Your task to perform on an android device: open a new tab in the chrome app Image 0: 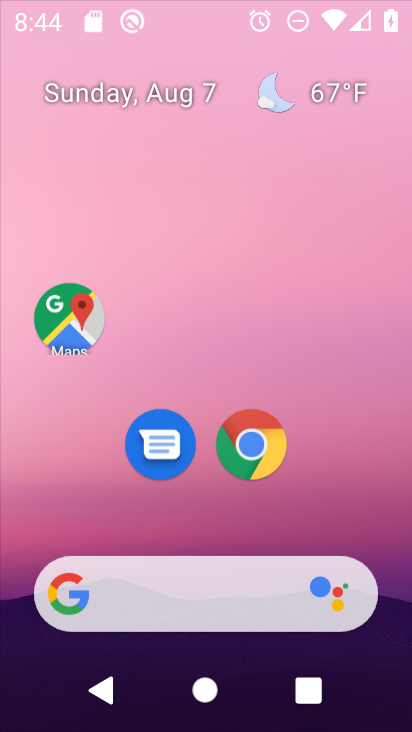
Step 0: press home button
Your task to perform on an android device: open a new tab in the chrome app Image 1: 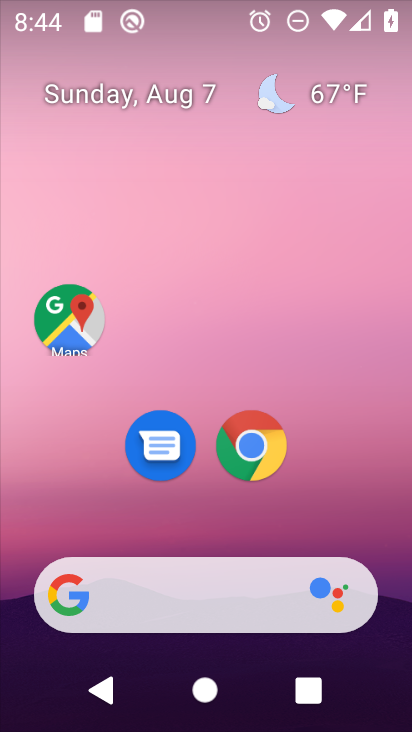
Step 1: drag from (323, 523) to (340, 62)
Your task to perform on an android device: open a new tab in the chrome app Image 2: 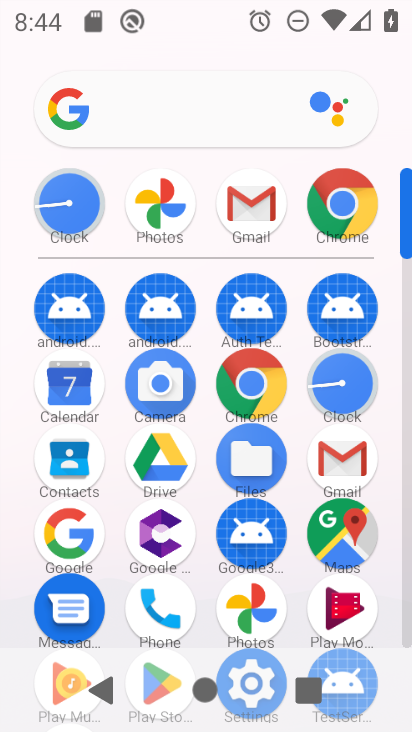
Step 2: click (340, 195)
Your task to perform on an android device: open a new tab in the chrome app Image 3: 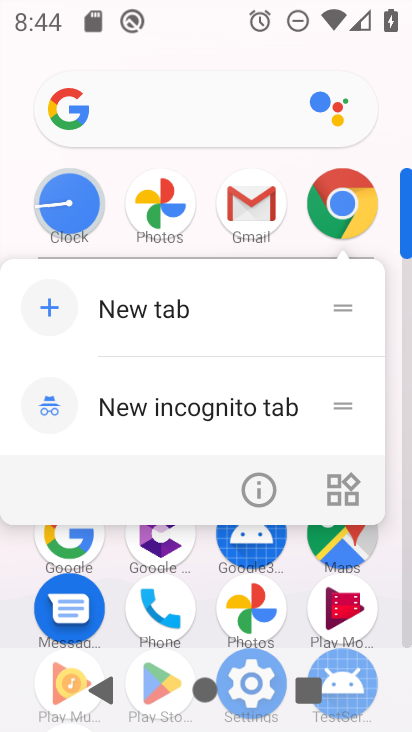
Step 3: click (343, 206)
Your task to perform on an android device: open a new tab in the chrome app Image 4: 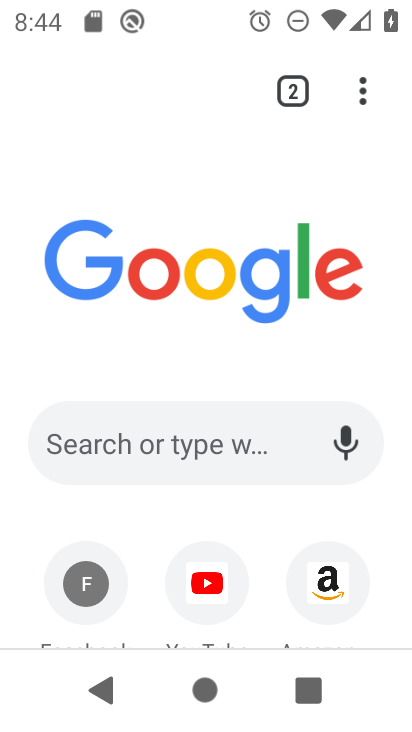
Step 4: click (287, 82)
Your task to perform on an android device: open a new tab in the chrome app Image 5: 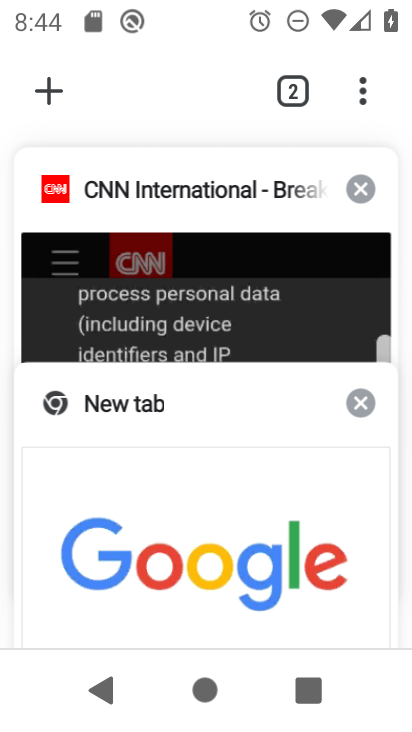
Step 5: click (32, 90)
Your task to perform on an android device: open a new tab in the chrome app Image 6: 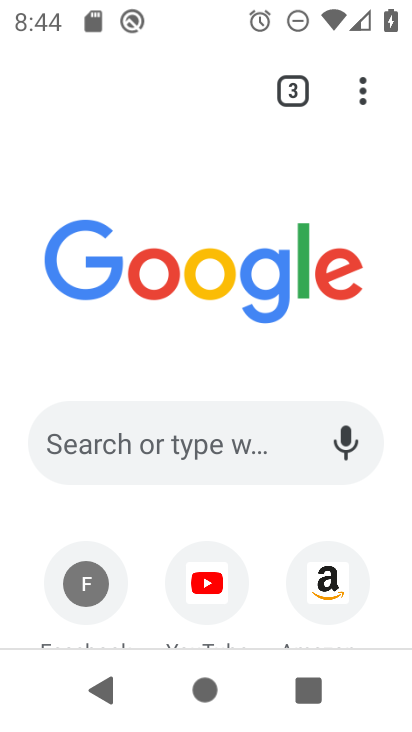
Step 6: task complete